Your task to perform on an android device: check out phone information Image 0: 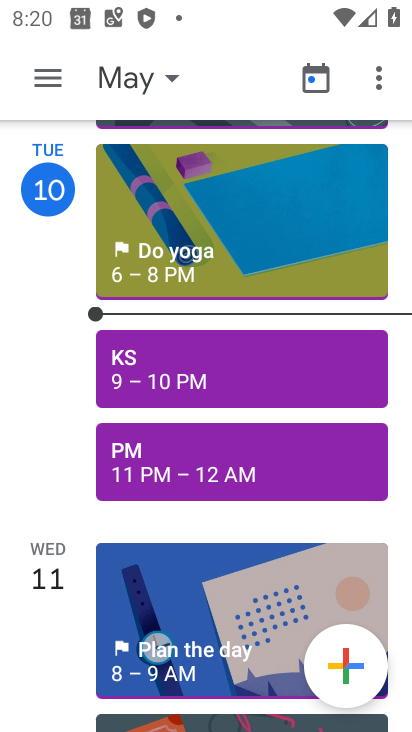
Step 0: press back button
Your task to perform on an android device: check out phone information Image 1: 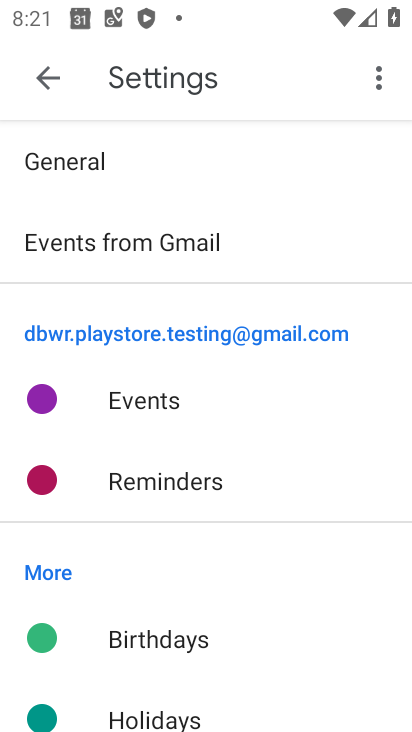
Step 1: click (56, 76)
Your task to perform on an android device: check out phone information Image 2: 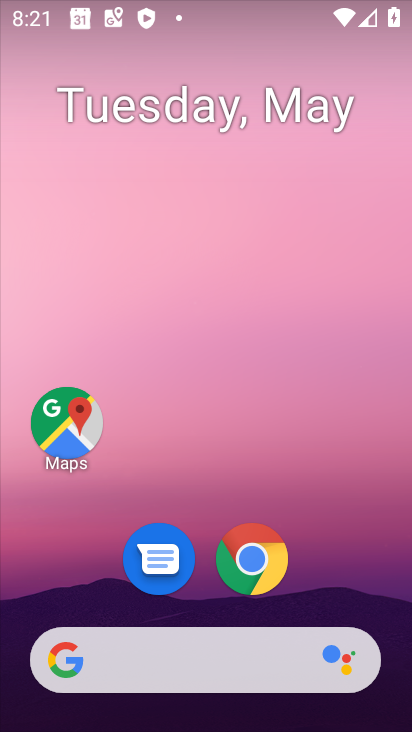
Step 2: drag from (226, 608) to (298, 69)
Your task to perform on an android device: check out phone information Image 3: 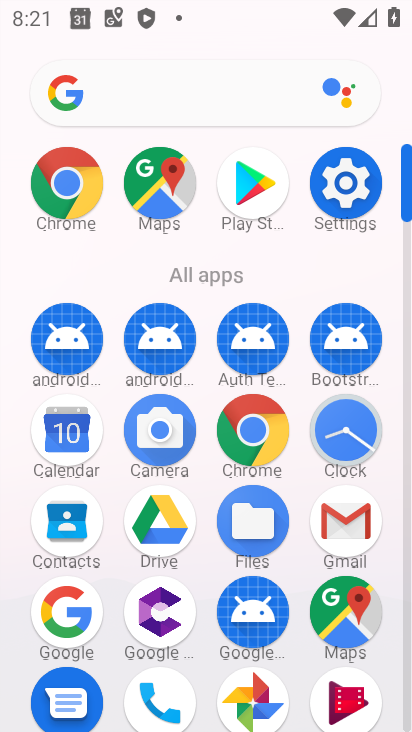
Step 3: click (336, 182)
Your task to perform on an android device: check out phone information Image 4: 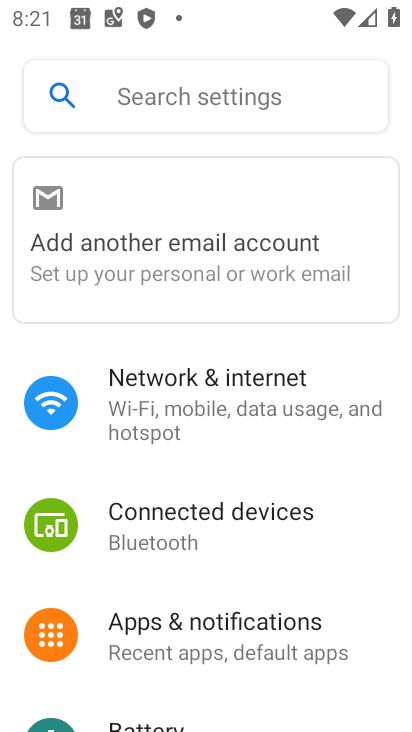
Step 4: drag from (260, 616) to (331, 122)
Your task to perform on an android device: check out phone information Image 5: 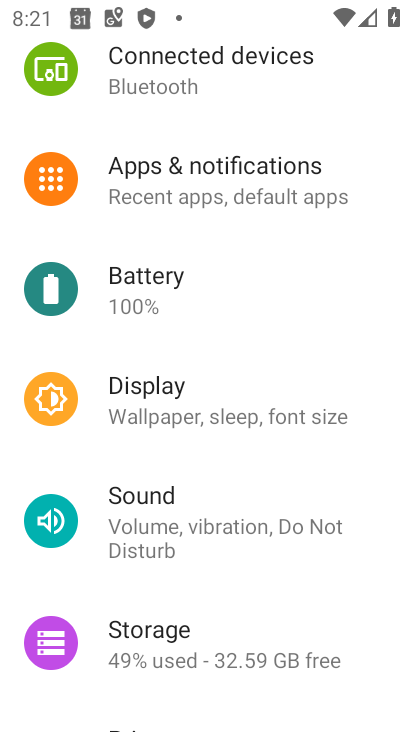
Step 5: drag from (235, 587) to (310, 105)
Your task to perform on an android device: check out phone information Image 6: 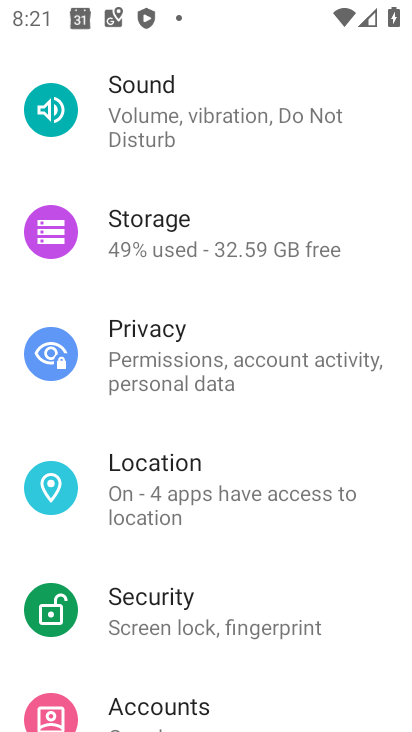
Step 6: drag from (195, 661) to (234, 285)
Your task to perform on an android device: check out phone information Image 7: 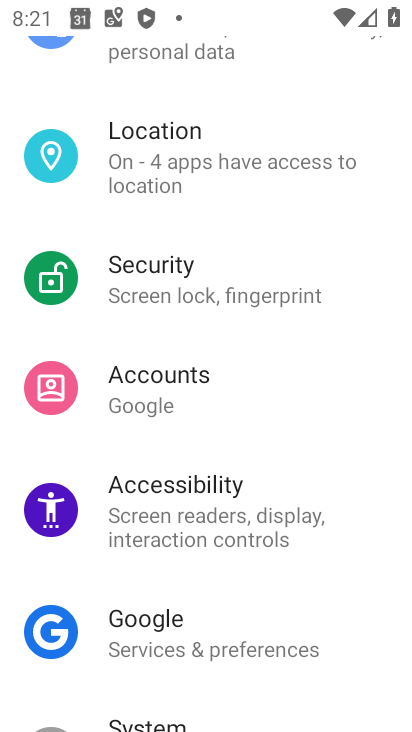
Step 7: drag from (228, 629) to (249, 83)
Your task to perform on an android device: check out phone information Image 8: 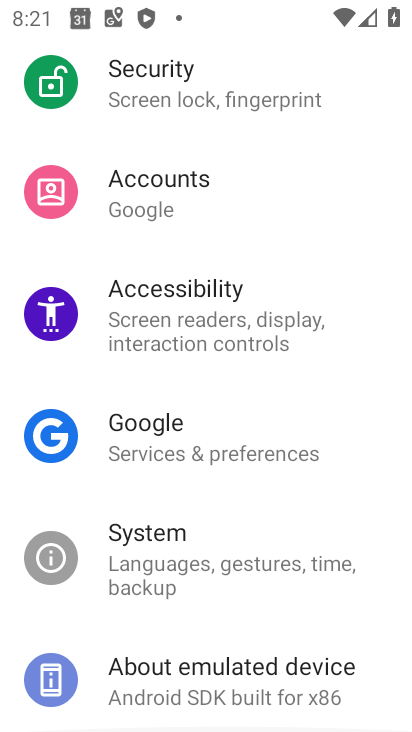
Step 8: drag from (187, 632) to (292, 128)
Your task to perform on an android device: check out phone information Image 9: 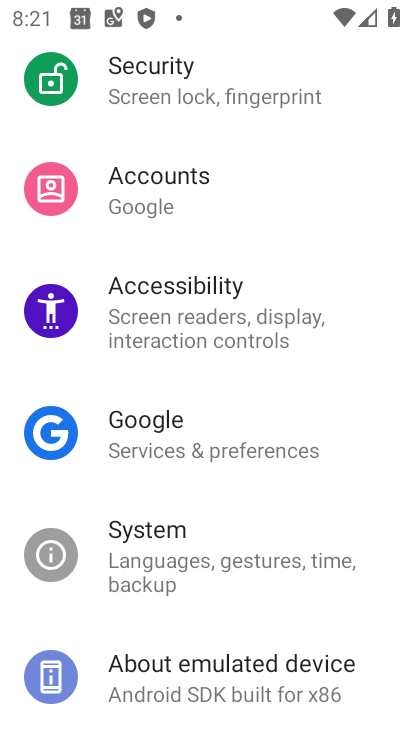
Step 9: click (222, 673)
Your task to perform on an android device: check out phone information Image 10: 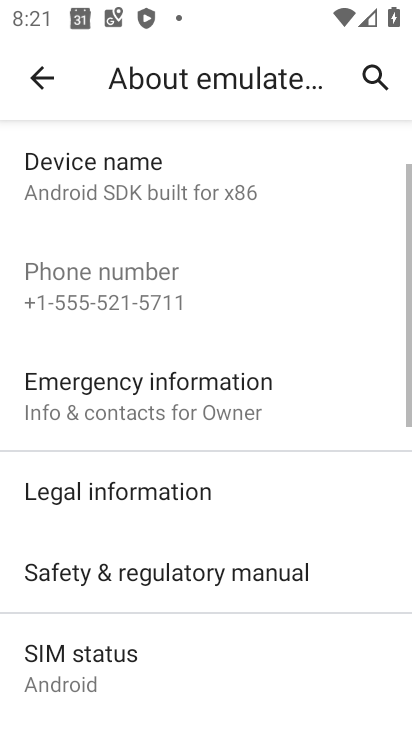
Step 10: task complete